Your task to perform on an android device: Go to settings Image 0: 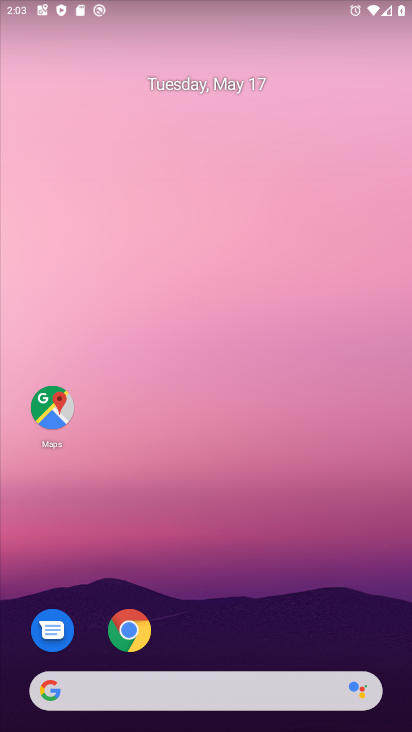
Step 0: drag from (336, 586) to (312, 63)
Your task to perform on an android device: Go to settings Image 1: 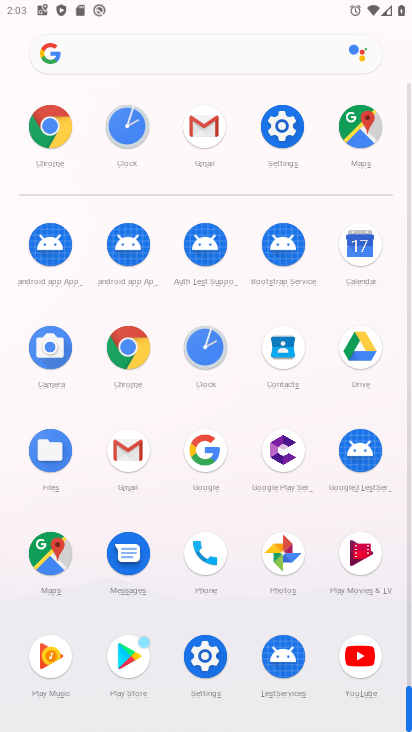
Step 1: click (201, 658)
Your task to perform on an android device: Go to settings Image 2: 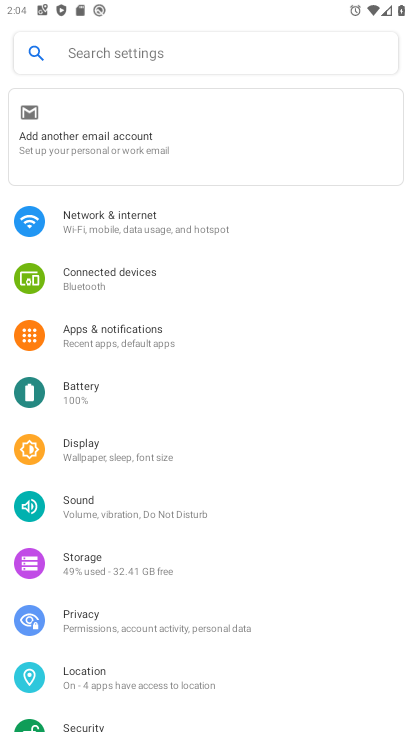
Step 2: task complete